Your task to perform on an android device: turn on data saver in the chrome app Image 0: 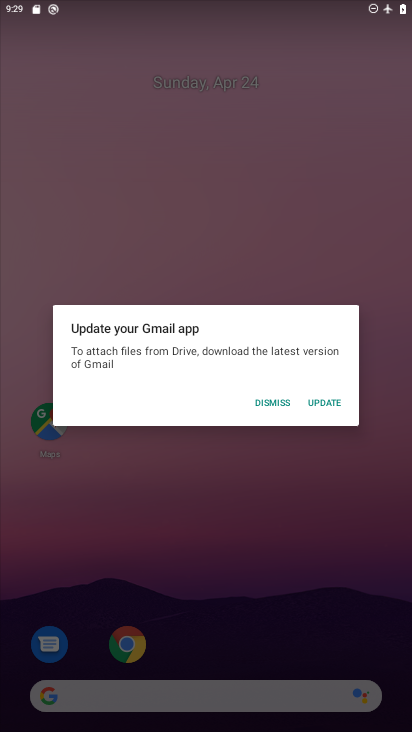
Step 0: click (285, 403)
Your task to perform on an android device: turn on data saver in the chrome app Image 1: 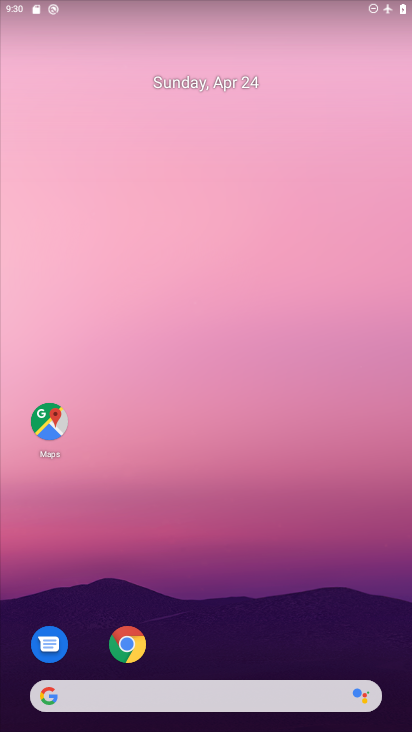
Step 1: click (131, 651)
Your task to perform on an android device: turn on data saver in the chrome app Image 2: 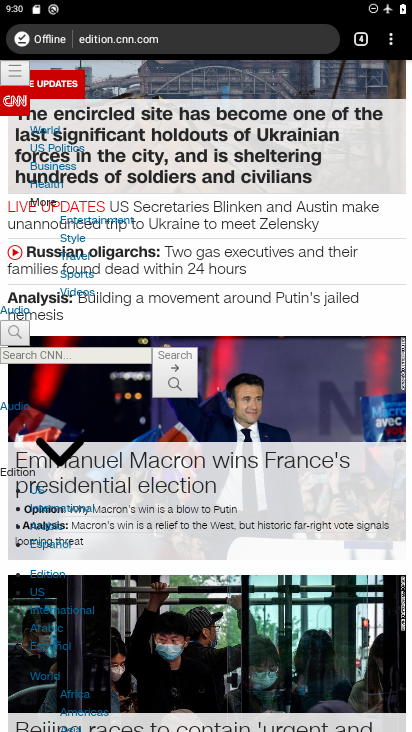
Step 2: drag from (390, 38) to (279, 475)
Your task to perform on an android device: turn on data saver in the chrome app Image 3: 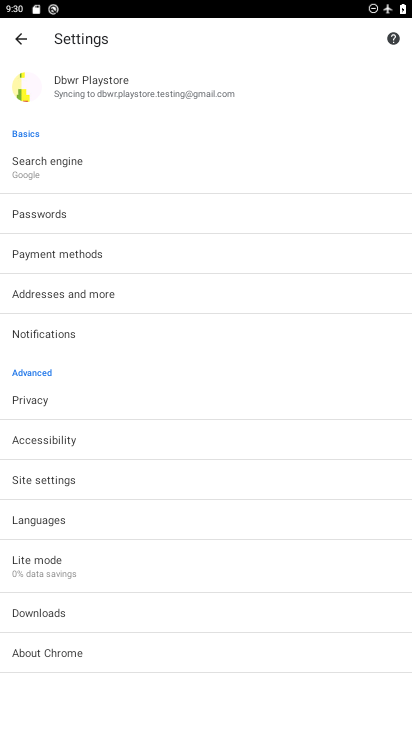
Step 3: click (43, 565)
Your task to perform on an android device: turn on data saver in the chrome app Image 4: 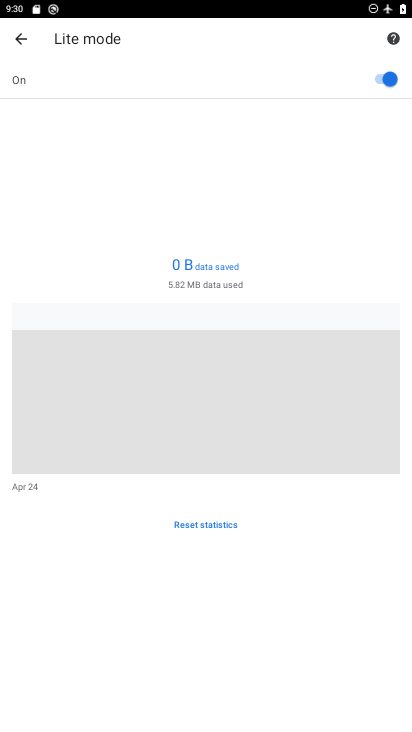
Step 4: task complete